Your task to perform on an android device: set default search engine in the chrome app Image 0: 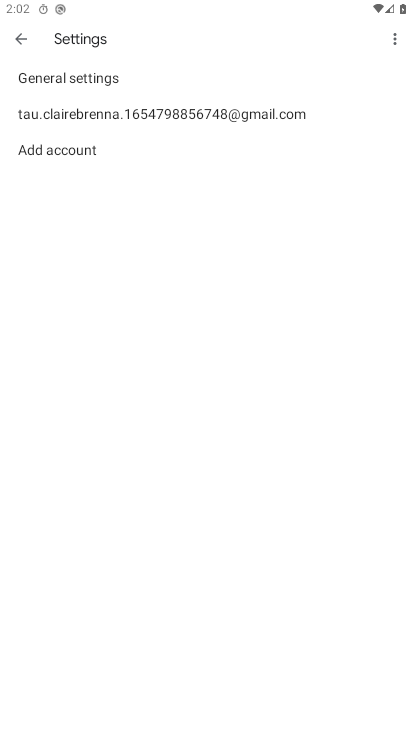
Step 0: press home button
Your task to perform on an android device: set default search engine in the chrome app Image 1: 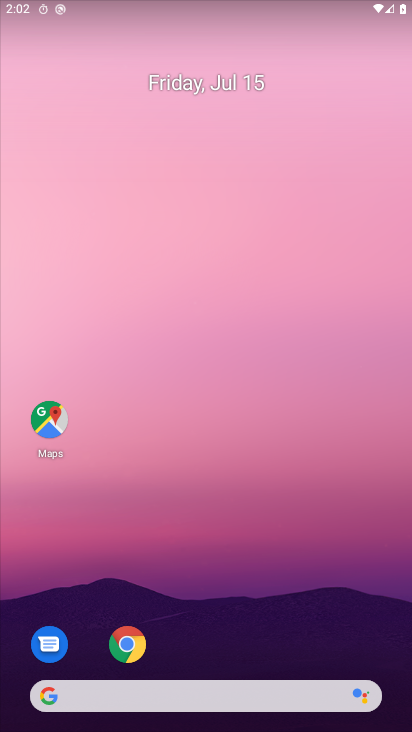
Step 1: click (106, 649)
Your task to perform on an android device: set default search engine in the chrome app Image 2: 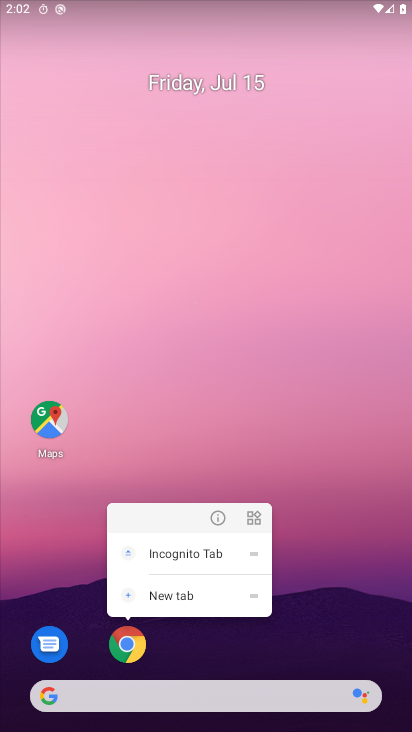
Step 2: click (132, 637)
Your task to perform on an android device: set default search engine in the chrome app Image 3: 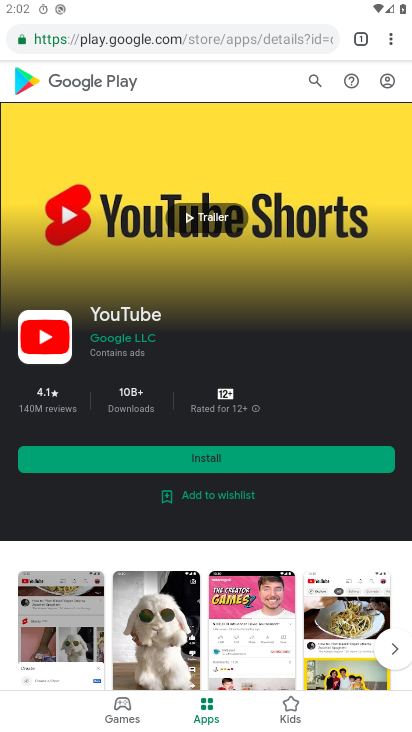
Step 3: click (393, 35)
Your task to perform on an android device: set default search engine in the chrome app Image 4: 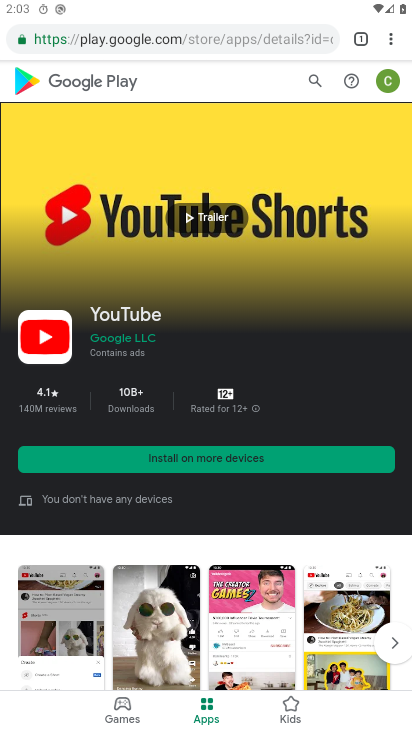
Step 4: click (384, 33)
Your task to perform on an android device: set default search engine in the chrome app Image 5: 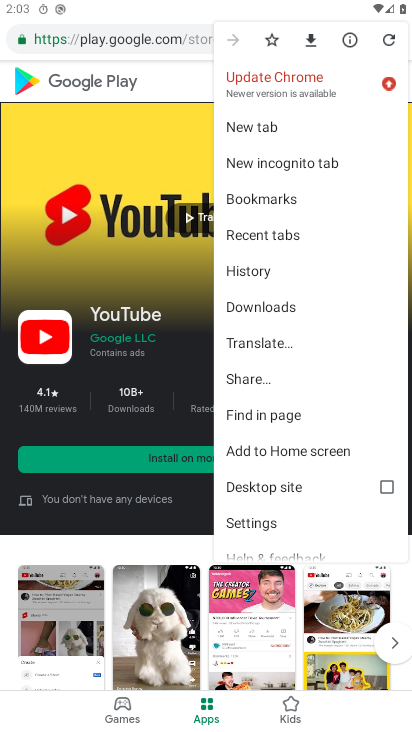
Step 5: click (261, 522)
Your task to perform on an android device: set default search engine in the chrome app Image 6: 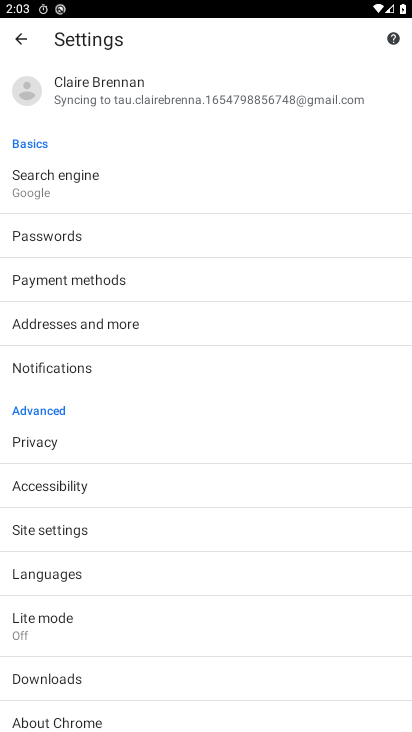
Step 6: click (70, 189)
Your task to perform on an android device: set default search engine in the chrome app Image 7: 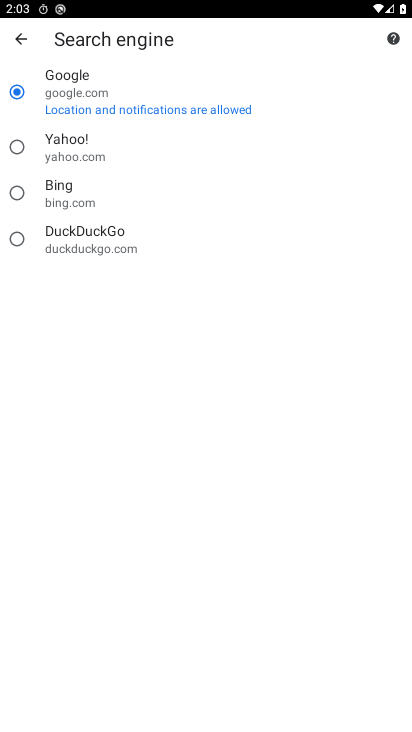
Step 7: task complete